Your task to perform on an android device: turn on location history Image 0: 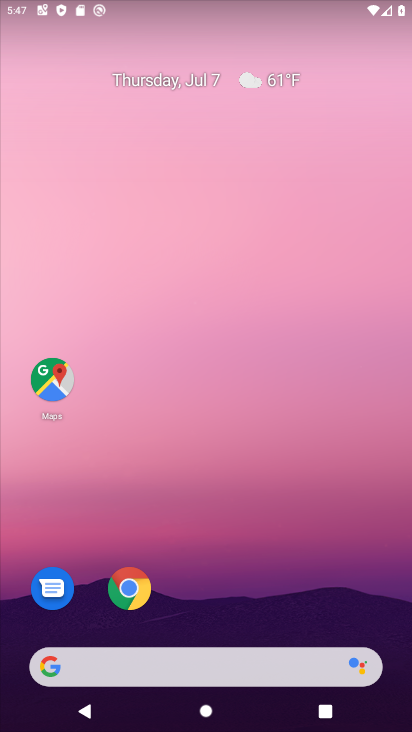
Step 0: drag from (195, 605) to (294, 79)
Your task to perform on an android device: turn on location history Image 1: 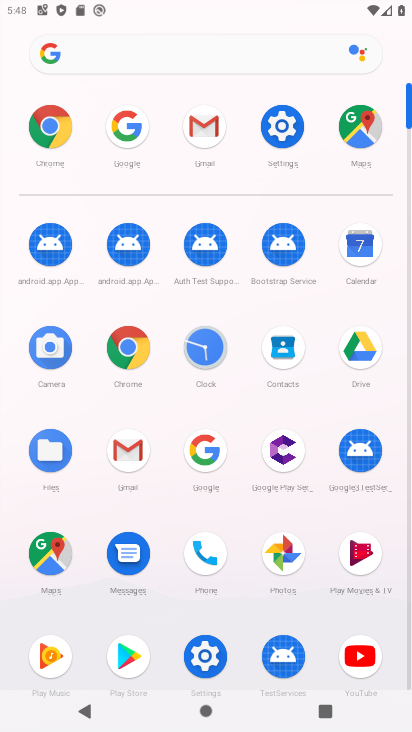
Step 1: click (270, 131)
Your task to perform on an android device: turn on location history Image 2: 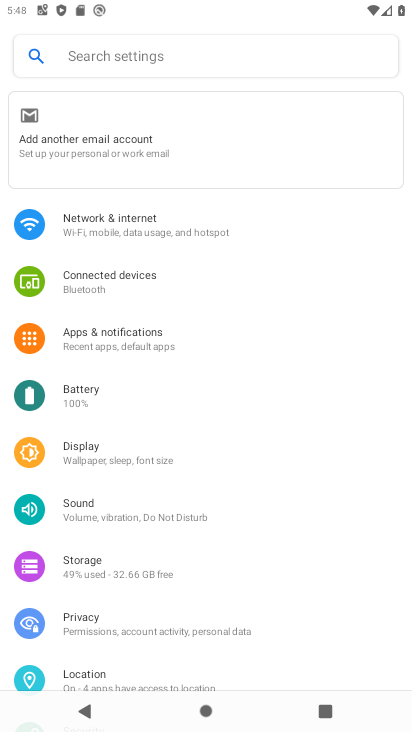
Step 2: click (90, 678)
Your task to perform on an android device: turn on location history Image 3: 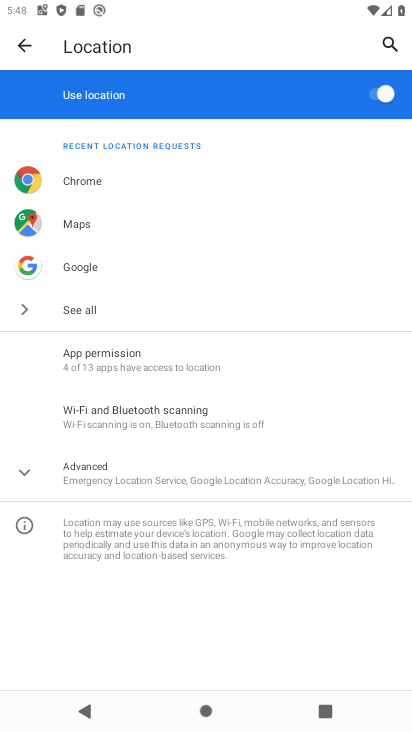
Step 3: click (118, 479)
Your task to perform on an android device: turn on location history Image 4: 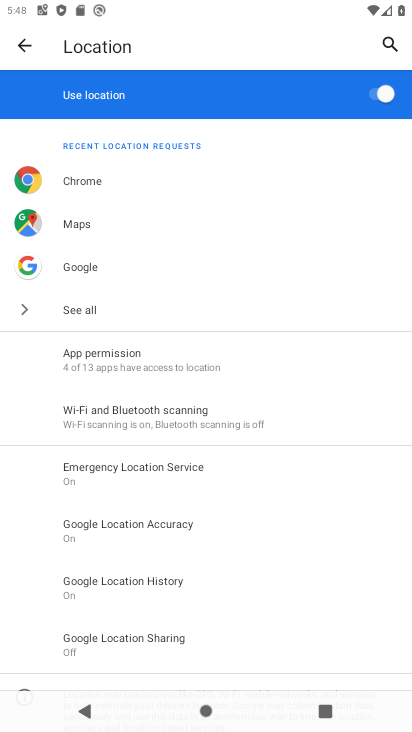
Step 4: click (111, 580)
Your task to perform on an android device: turn on location history Image 5: 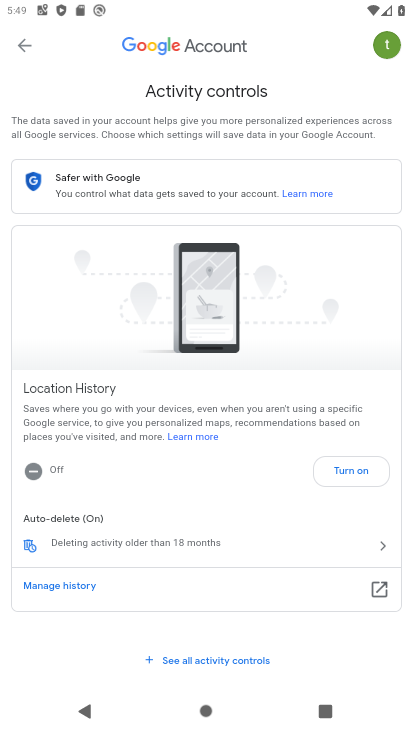
Step 5: click (360, 469)
Your task to perform on an android device: turn on location history Image 6: 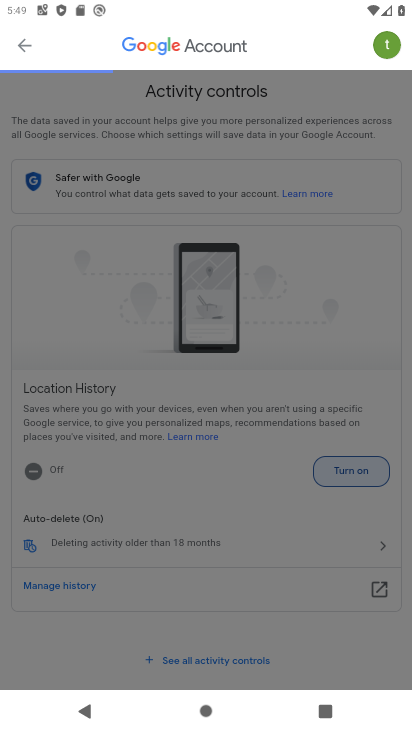
Step 6: click (360, 469)
Your task to perform on an android device: turn on location history Image 7: 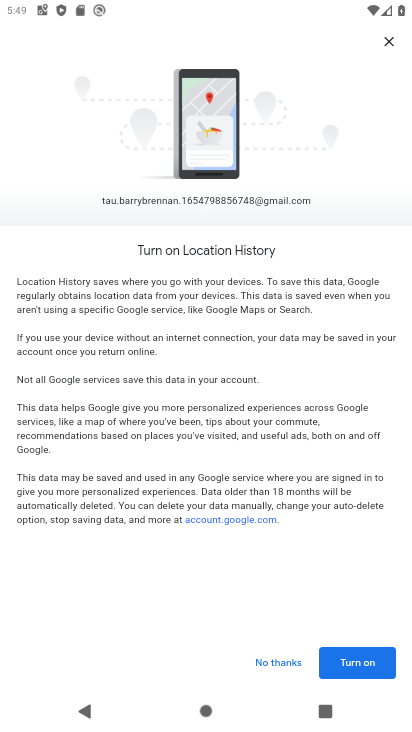
Step 7: click (354, 659)
Your task to perform on an android device: turn on location history Image 8: 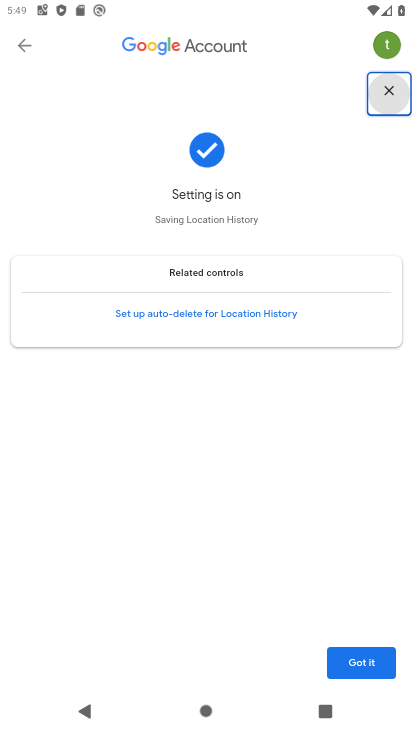
Step 8: click (369, 658)
Your task to perform on an android device: turn on location history Image 9: 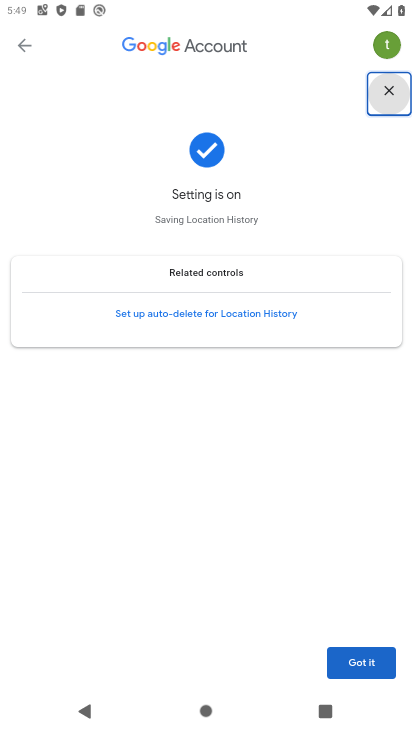
Step 9: task complete